Your task to perform on an android device: What's the weather going to be this weekend? Image 0: 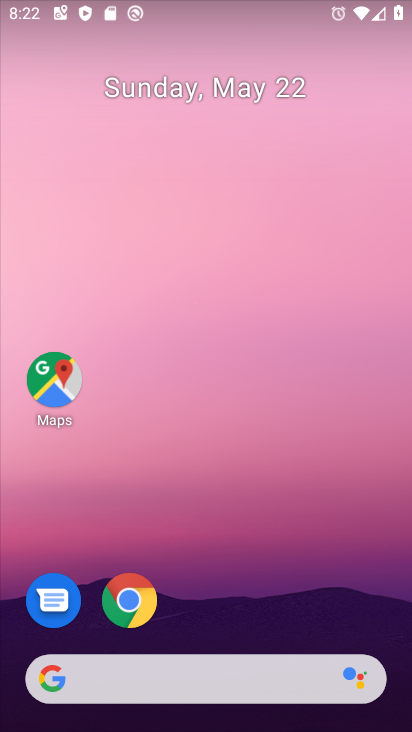
Step 0: drag from (278, 623) to (273, 79)
Your task to perform on an android device: What's the weather going to be this weekend? Image 1: 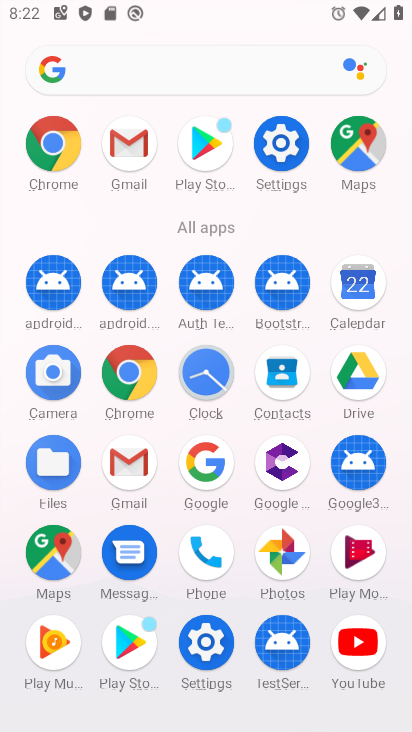
Step 1: click (206, 488)
Your task to perform on an android device: What's the weather going to be this weekend? Image 2: 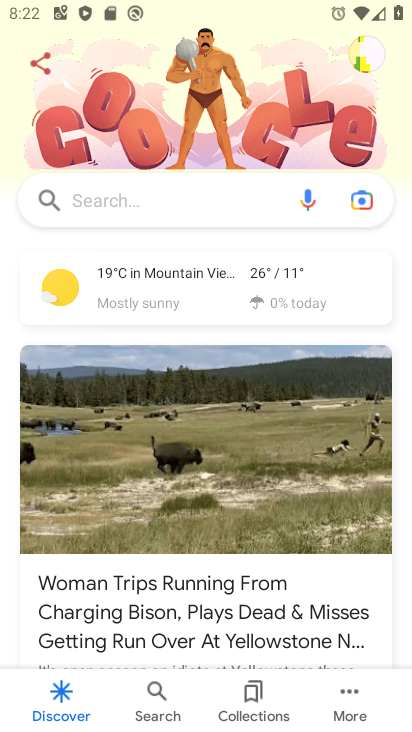
Step 2: click (165, 214)
Your task to perform on an android device: What's the weather going to be this weekend? Image 3: 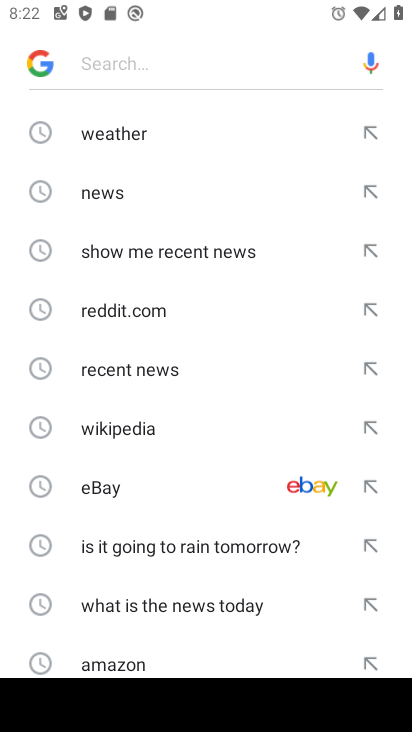
Step 3: click (267, 125)
Your task to perform on an android device: What's the weather going to be this weekend? Image 4: 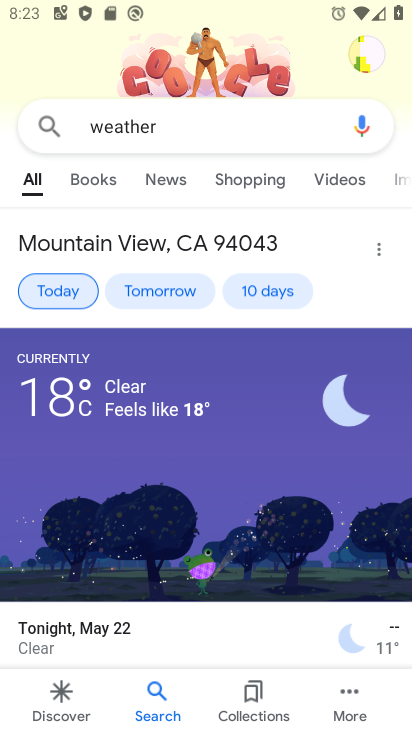
Step 4: click (166, 293)
Your task to perform on an android device: What's the weather going to be this weekend? Image 5: 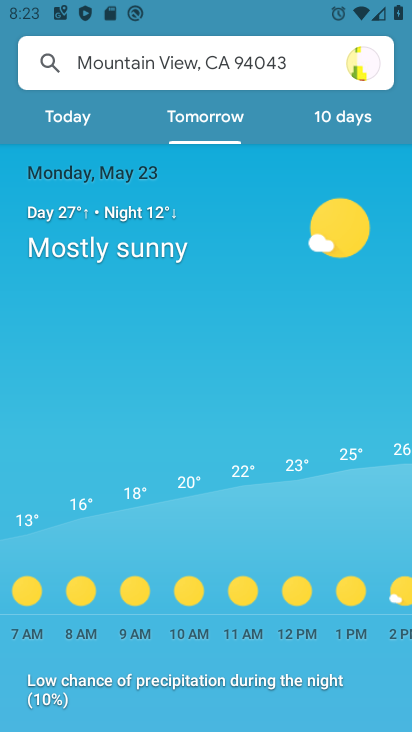
Step 5: click (338, 127)
Your task to perform on an android device: What's the weather going to be this weekend? Image 6: 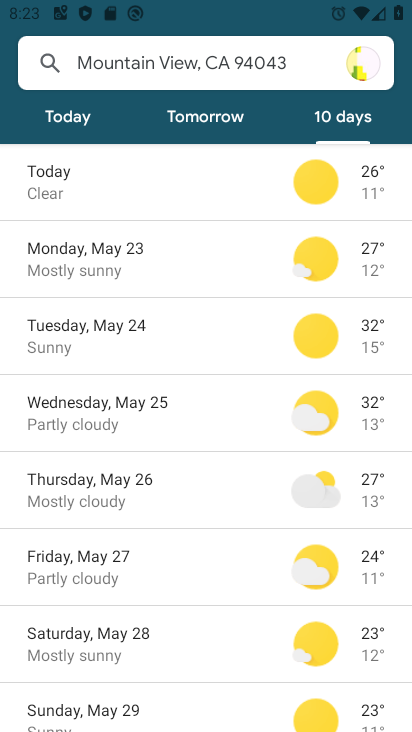
Step 6: task complete